Your task to perform on an android device: open sync settings in chrome Image 0: 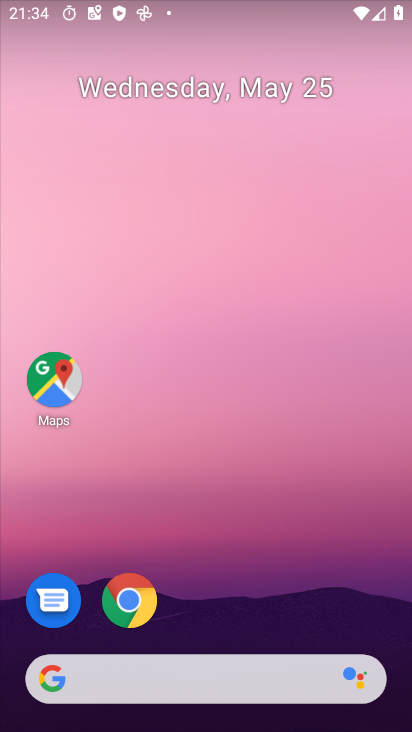
Step 0: drag from (335, 584) to (294, 175)
Your task to perform on an android device: open sync settings in chrome Image 1: 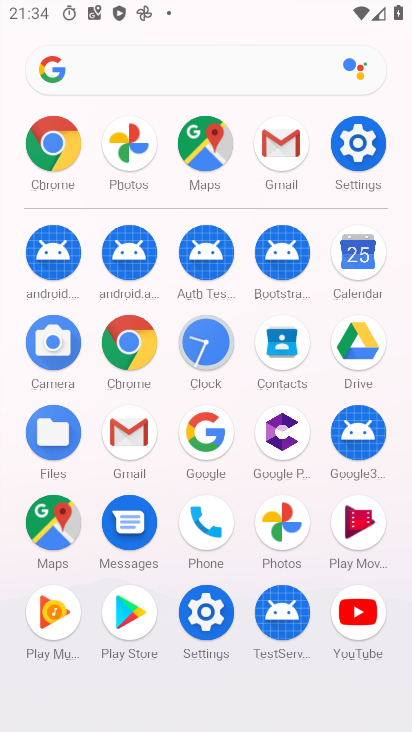
Step 1: click (119, 340)
Your task to perform on an android device: open sync settings in chrome Image 2: 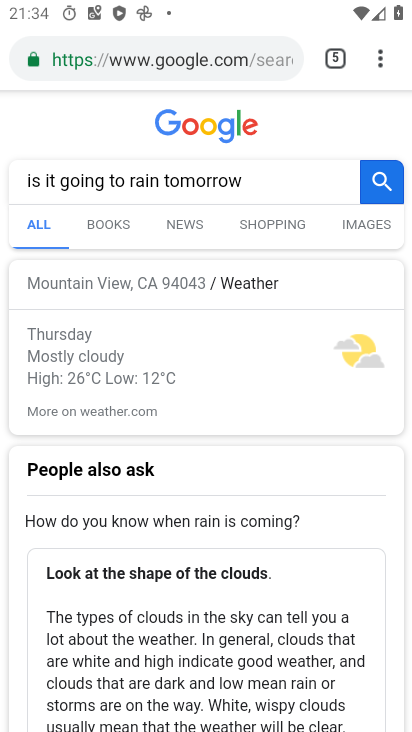
Step 2: drag from (385, 68) to (193, 645)
Your task to perform on an android device: open sync settings in chrome Image 3: 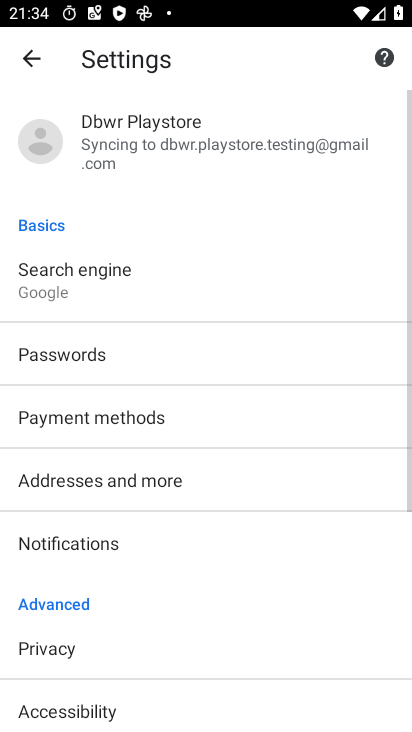
Step 3: drag from (181, 678) to (193, 299)
Your task to perform on an android device: open sync settings in chrome Image 4: 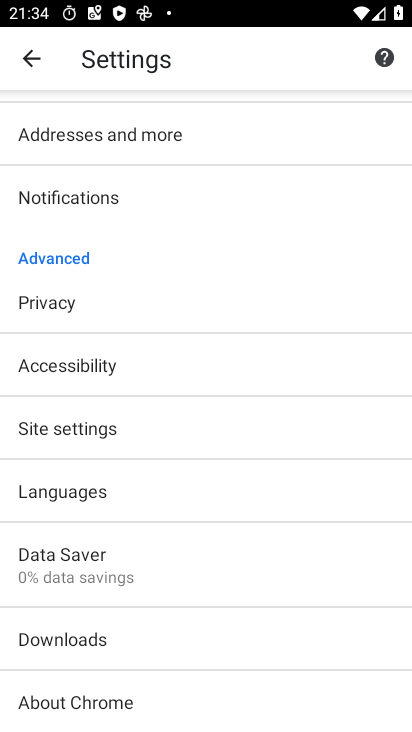
Step 4: click (140, 431)
Your task to perform on an android device: open sync settings in chrome Image 5: 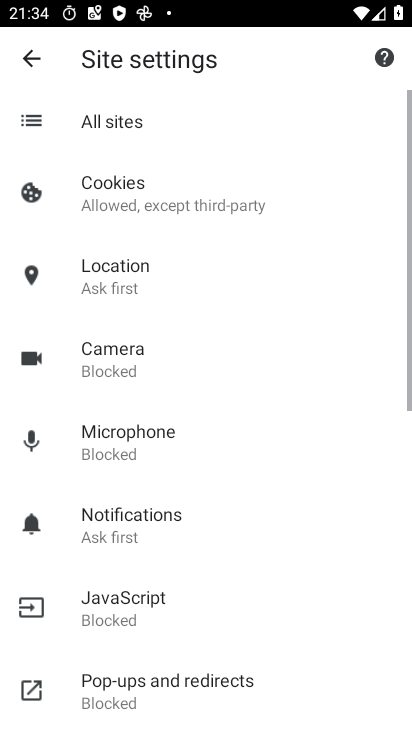
Step 5: drag from (177, 642) to (176, 342)
Your task to perform on an android device: open sync settings in chrome Image 6: 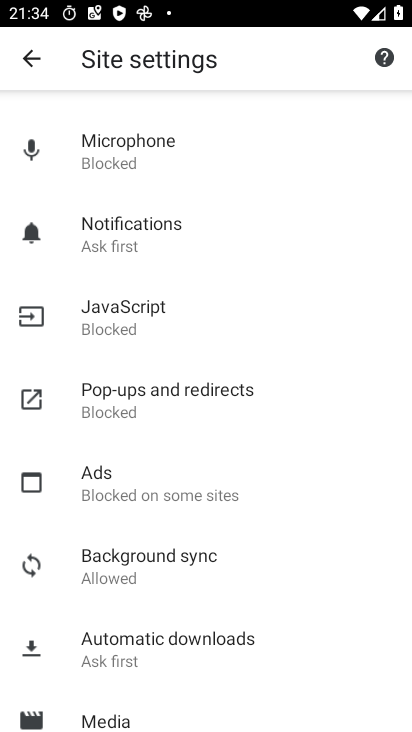
Step 6: click (183, 568)
Your task to perform on an android device: open sync settings in chrome Image 7: 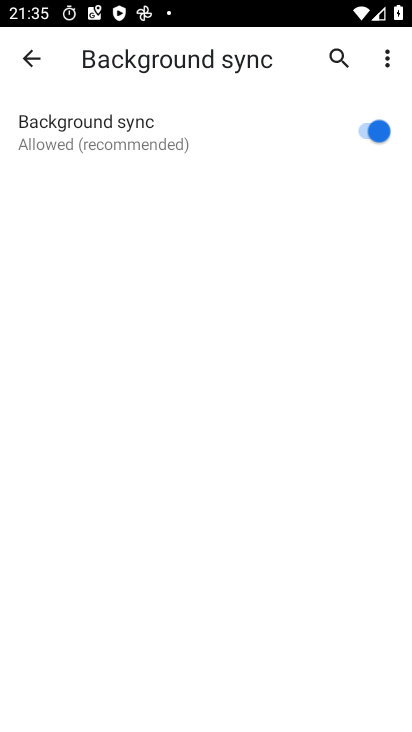
Step 7: task complete